Your task to perform on an android device: delete browsing data in the chrome app Image 0: 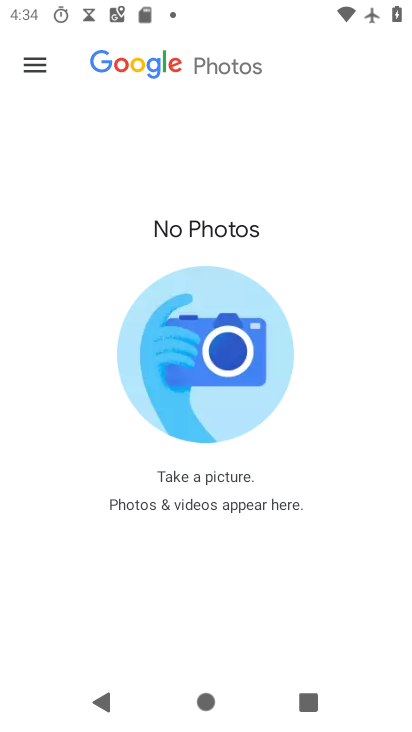
Step 0: press home button
Your task to perform on an android device: delete browsing data in the chrome app Image 1: 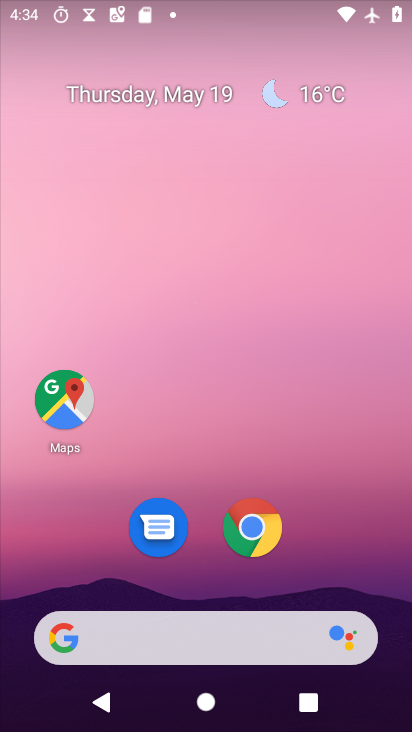
Step 1: click (261, 528)
Your task to perform on an android device: delete browsing data in the chrome app Image 2: 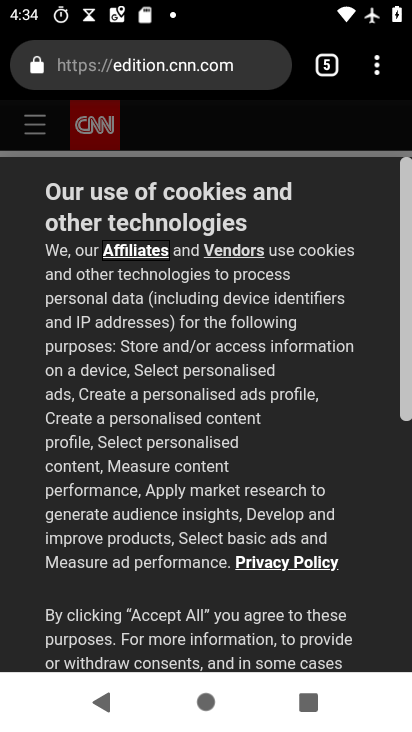
Step 2: press home button
Your task to perform on an android device: delete browsing data in the chrome app Image 3: 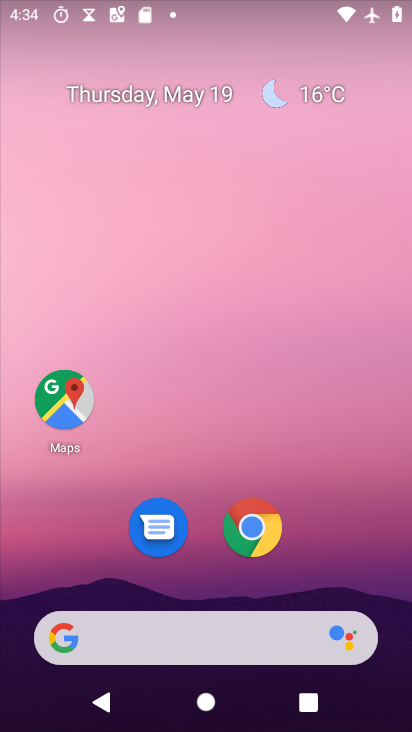
Step 3: click (248, 535)
Your task to perform on an android device: delete browsing data in the chrome app Image 4: 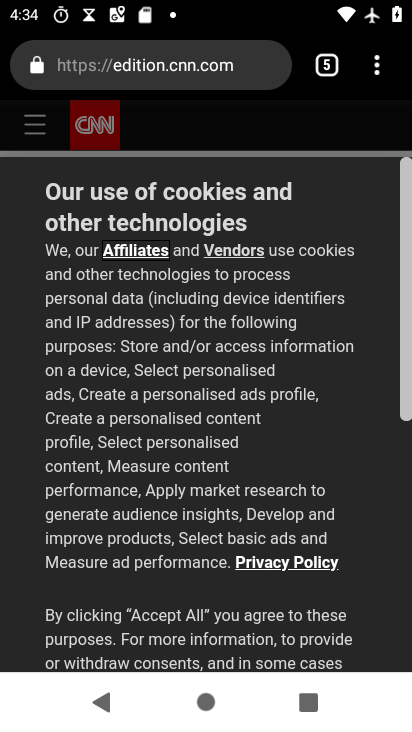
Step 4: click (371, 69)
Your task to perform on an android device: delete browsing data in the chrome app Image 5: 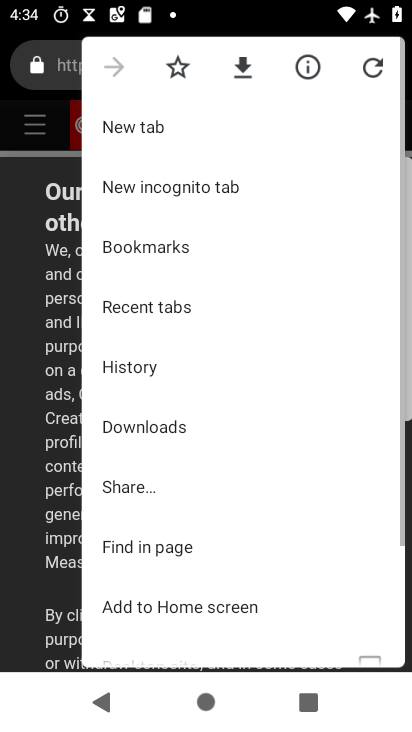
Step 5: drag from (241, 539) to (184, 135)
Your task to perform on an android device: delete browsing data in the chrome app Image 6: 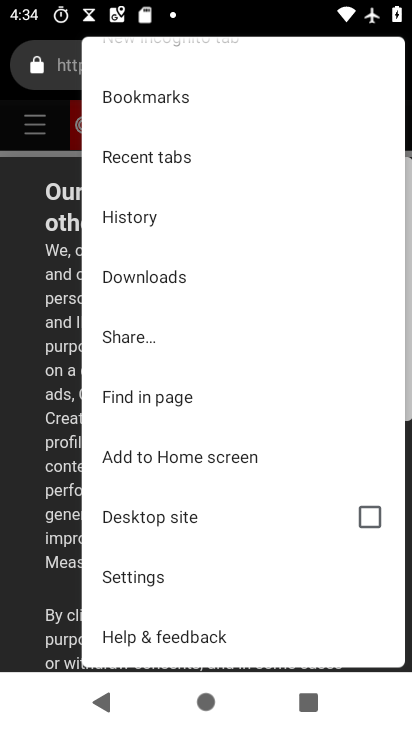
Step 6: click (196, 580)
Your task to perform on an android device: delete browsing data in the chrome app Image 7: 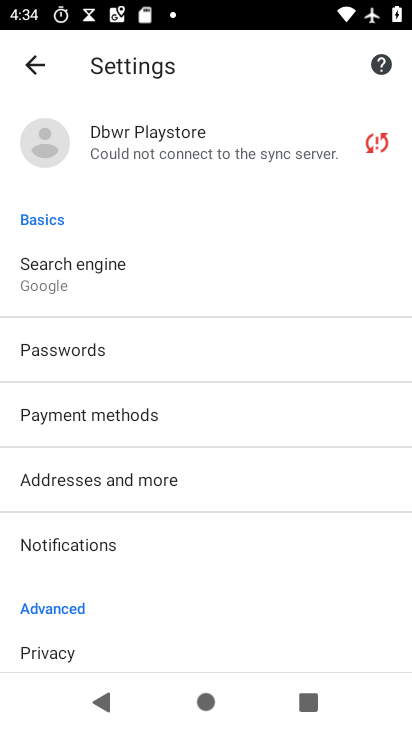
Step 7: click (39, 73)
Your task to perform on an android device: delete browsing data in the chrome app Image 8: 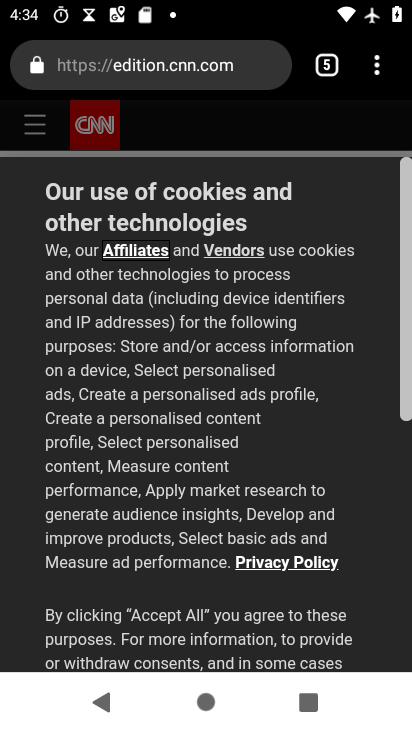
Step 8: click (377, 57)
Your task to perform on an android device: delete browsing data in the chrome app Image 9: 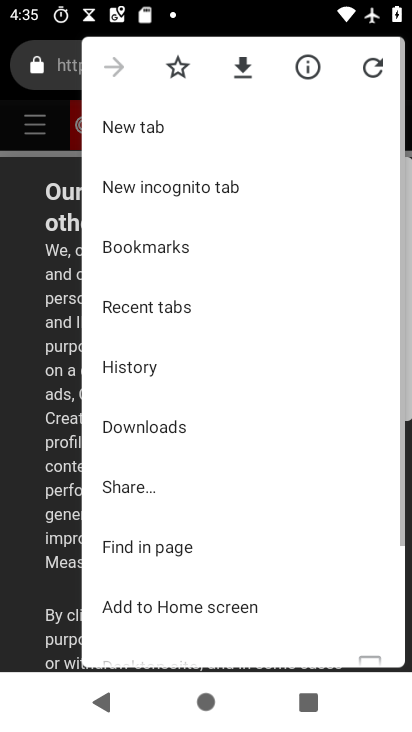
Step 9: click (170, 369)
Your task to perform on an android device: delete browsing data in the chrome app Image 10: 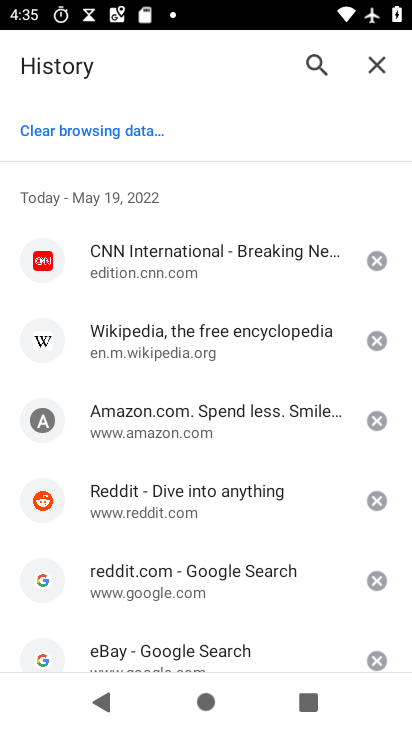
Step 10: click (118, 131)
Your task to perform on an android device: delete browsing data in the chrome app Image 11: 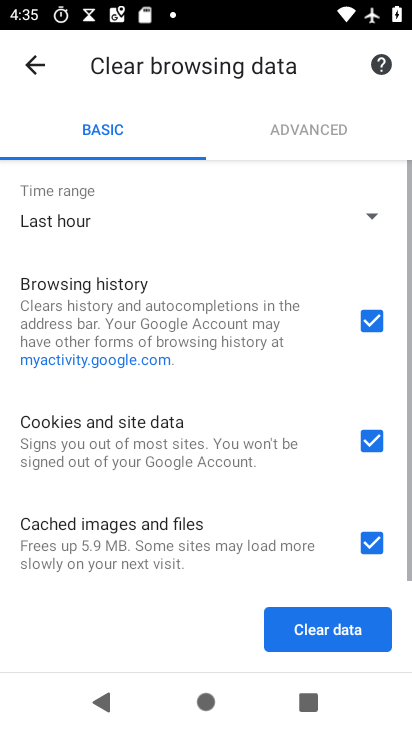
Step 11: click (352, 618)
Your task to perform on an android device: delete browsing data in the chrome app Image 12: 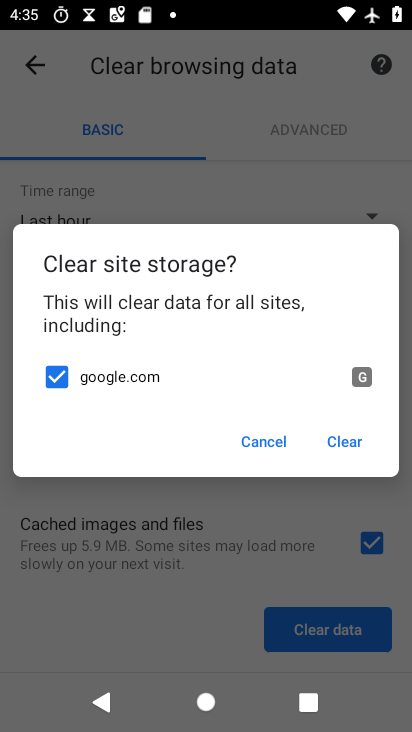
Step 12: click (344, 436)
Your task to perform on an android device: delete browsing data in the chrome app Image 13: 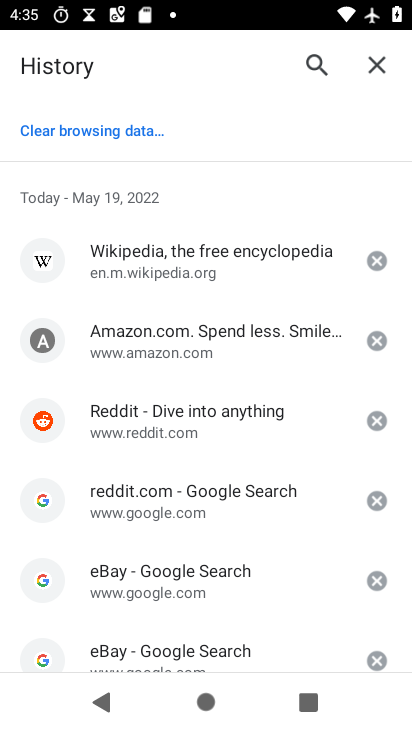
Step 13: task complete